Your task to perform on an android device: Go to Android settings Image 0: 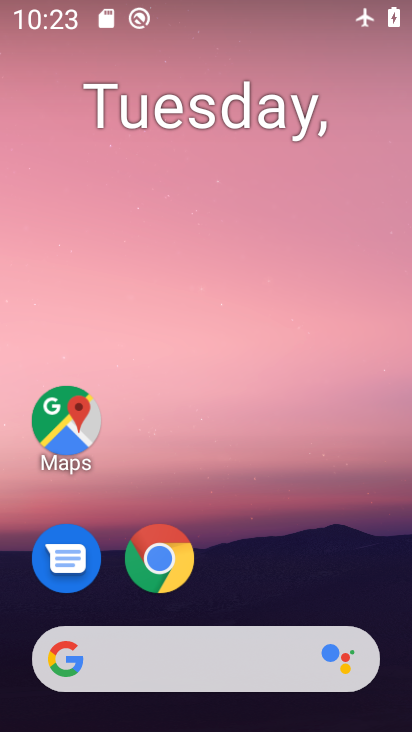
Step 0: drag from (351, 474) to (347, 65)
Your task to perform on an android device: Go to Android settings Image 1: 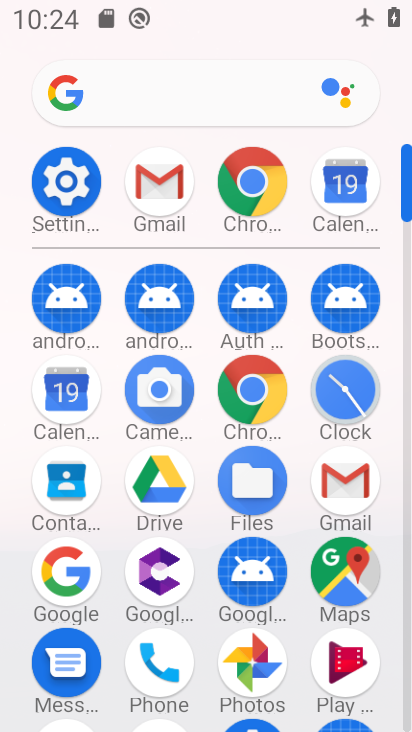
Step 1: click (75, 191)
Your task to perform on an android device: Go to Android settings Image 2: 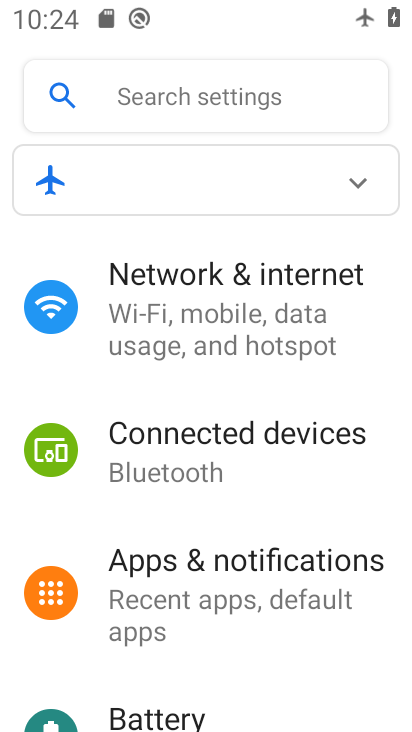
Step 2: drag from (330, 661) to (344, 501)
Your task to perform on an android device: Go to Android settings Image 3: 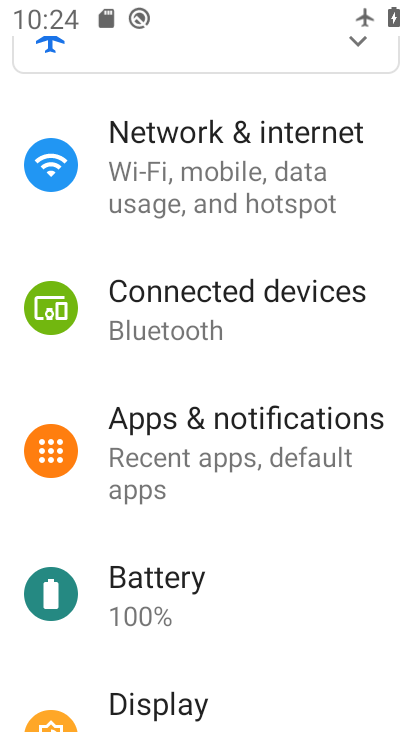
Step 3: drag from (329, 604) to (325, 490)
Your task to perform on an android device: Go to Android settings Image 4: 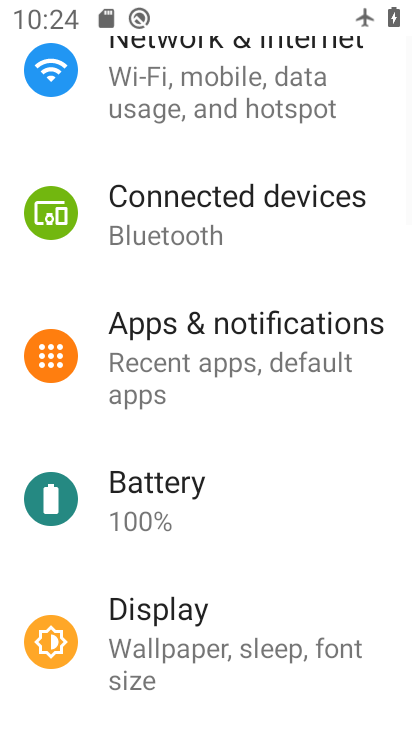
Step 4: drag from (319, 619) to (321, 487)
Your task to perform on an android device: Go to Android settings Image 5: 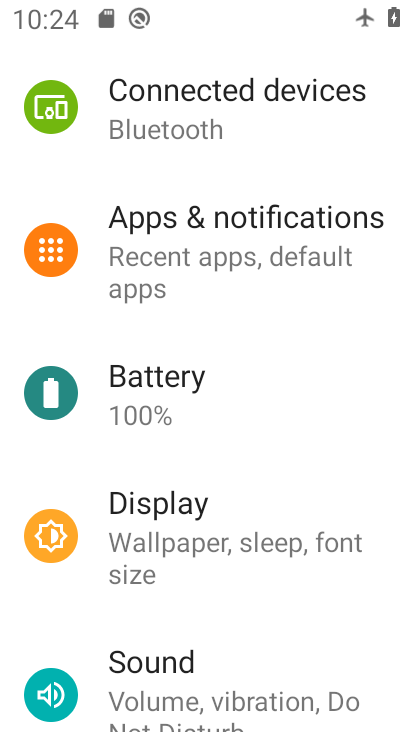
Step 5: drag from (315, 595) to (310, 386)
Your task to perform on an android device: Go to Android settings Image 6: 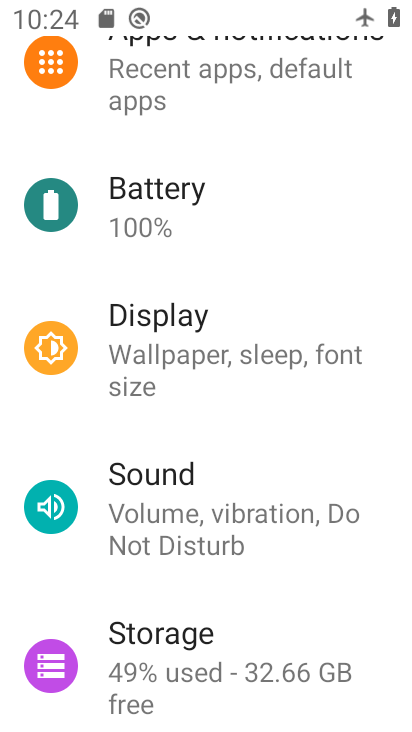
Step 6: drag from (282, 556) to (292, 413)
Your task to perform on an android device: Go to Android settings Image 7: 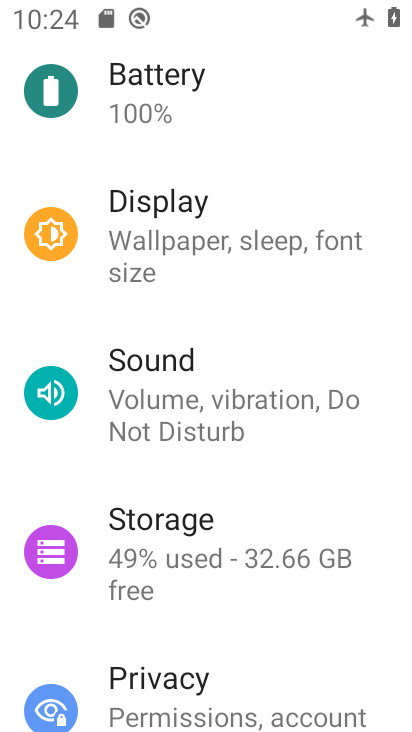
Step 7: drag from (295, 635) to (295, 426)
Your task to perform on an android device: Go to Android settings Image 8: 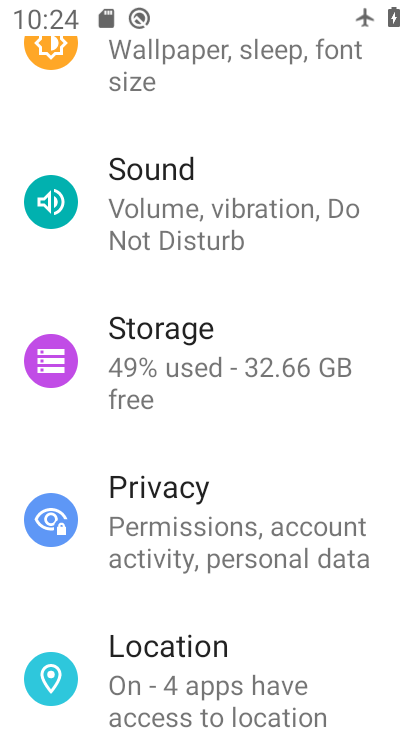
Step 8: drag from (326, 612) to (343, 491)
Your task to perform on an android device: Go to Android settings Image 9: 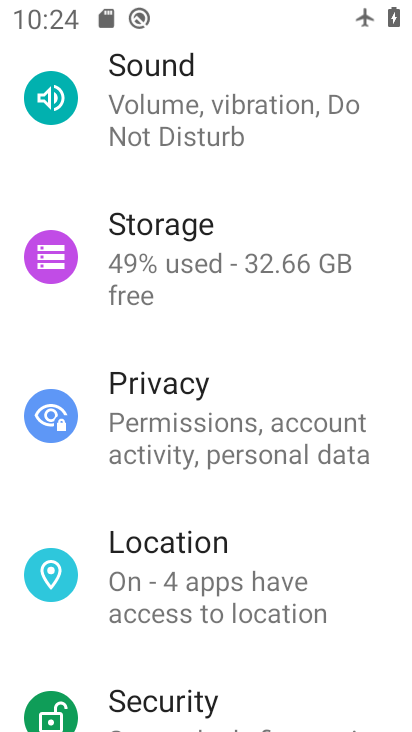
Step 9: drag from (356, 636) to (358, 383)
Your task to perform on an android device: Go to Android settings Image 10: 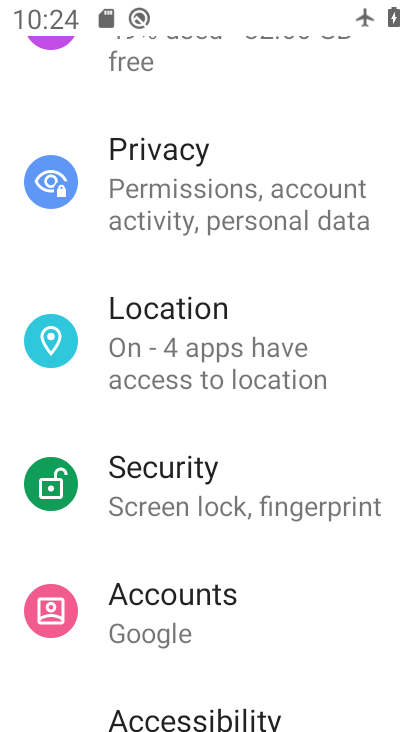
Step 10: drag from (341, 632) to (335, 463)
Your task to perform on an android device: Go to Android settings Image 11: 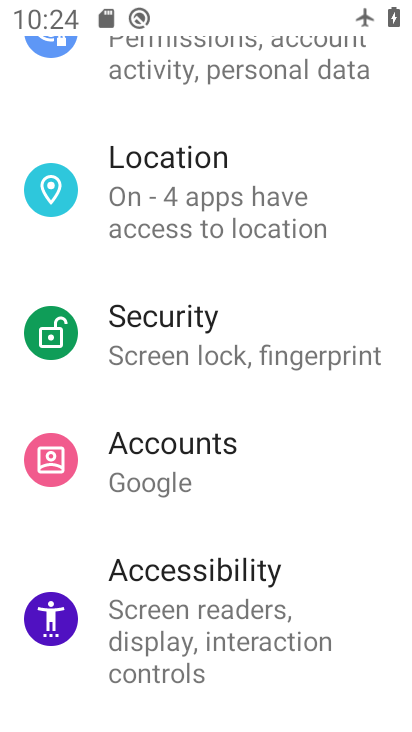
Step 11: drag from (364, 670) to (358, 529)
Your task to perform on an android device: Go to Android settings Image 12: 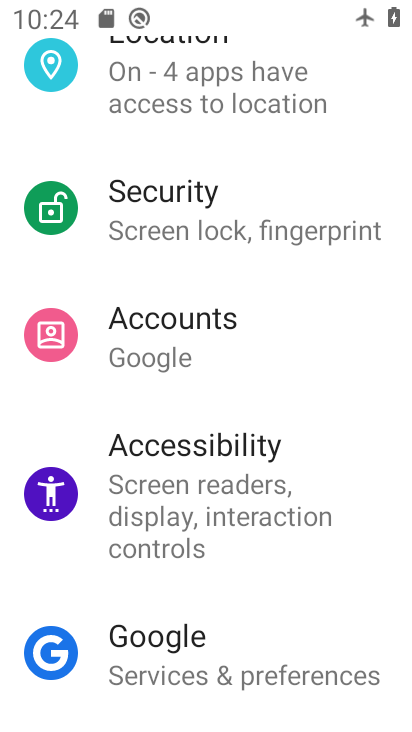
Step 12: drag from (360, 599) to (374, 451)
Your task to perform on an android device: Go to Android settings Image 13: 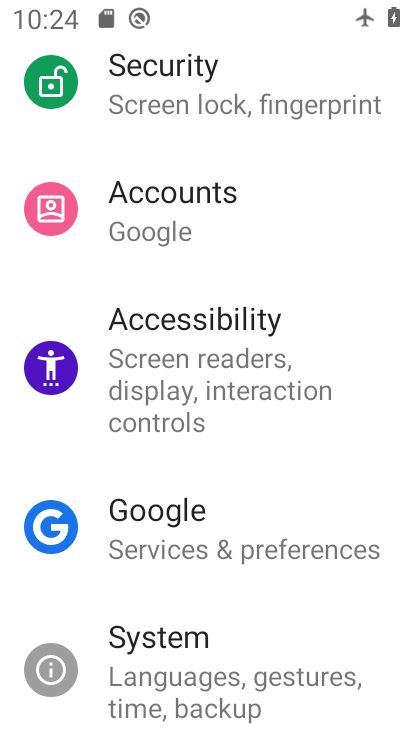
Step 13: click (305, 678)
Your task to perform on an android device: Go to Android settings Image 14: 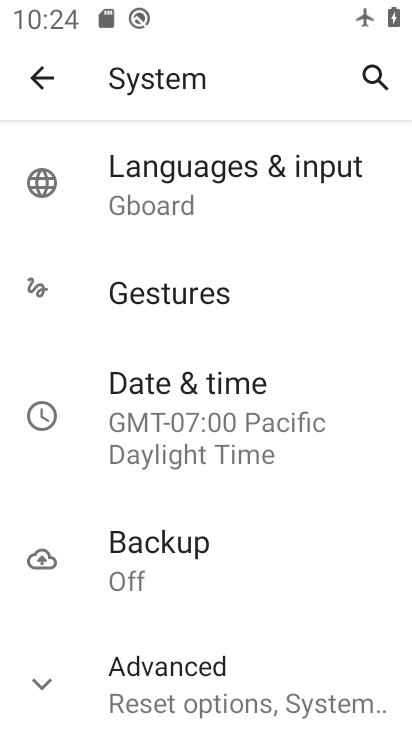
Step 14: click (255, 688)
Your task to perform on an android device: Go to Android settings Image 15: 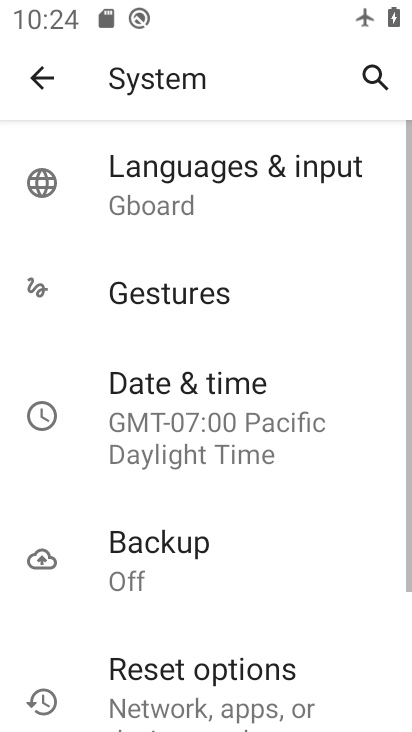
Step 15: drag from (321, 607) to (333, 402)
Your task to perform on an android device: Go to Android settings Image 16: 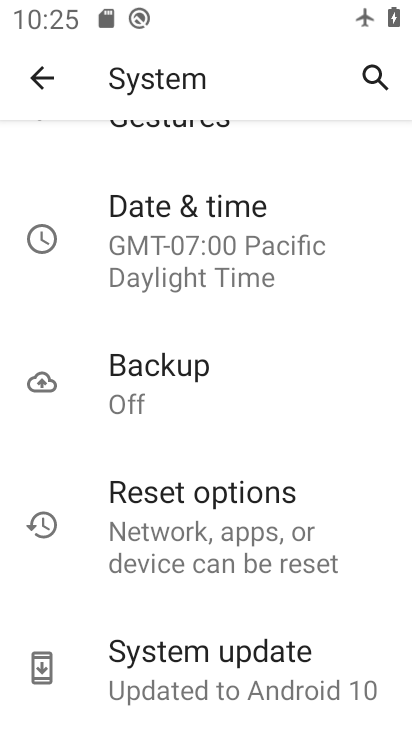
Step 16: drag from (352, 629) to (352, 463)
Your task to perform on an android device: Go to Android settings Image 17: 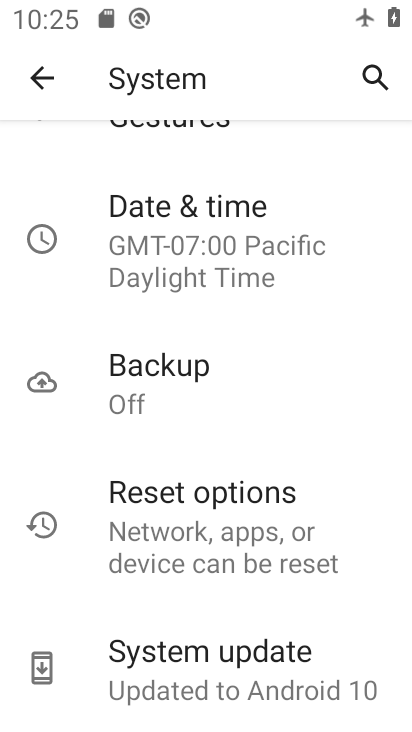
Step 17: click (207, 680)
Your task to perform on an android device: Go to Android settings Image 18: 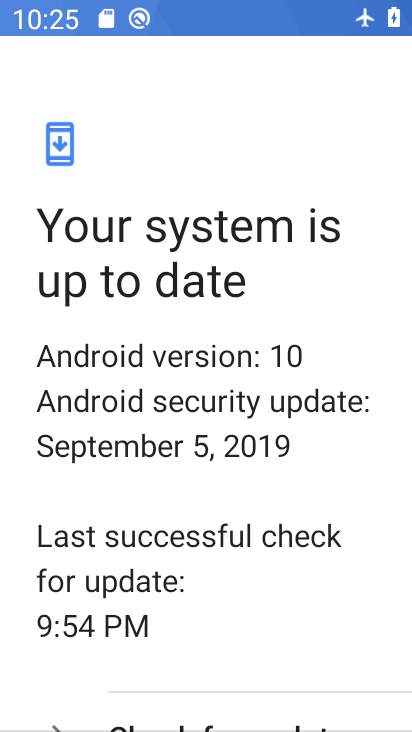
Step 18: task complete